Your task to perform on an android device: Turn off the flashlight Image 0: 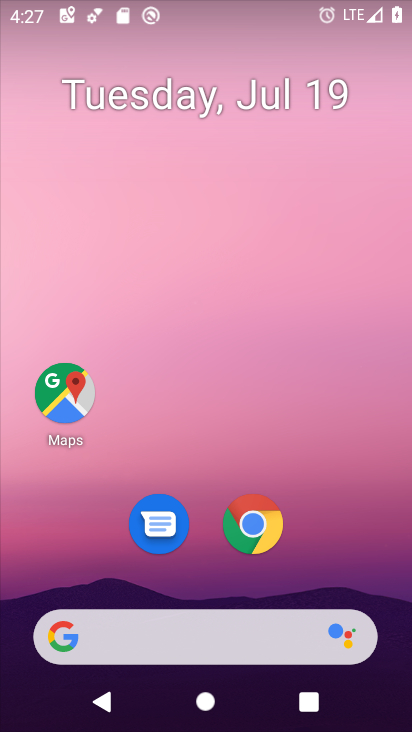
Step 0: drag from (317, 552) to (330, 0)
Your task to perform on an android device: Turn off the flashlight Image 1: 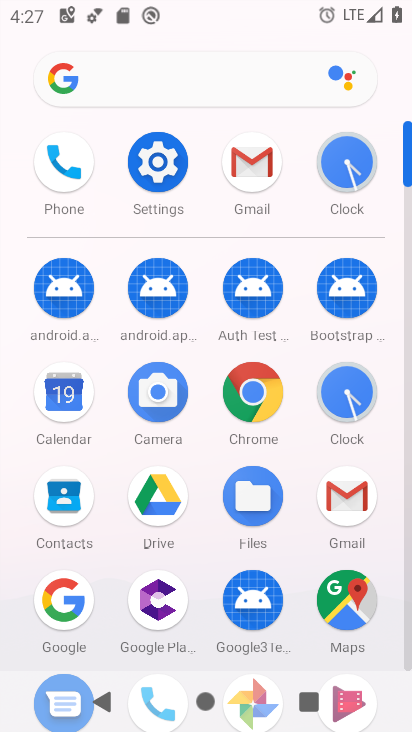
Step 1: click (176, 159)
Your task to perform on an android device: Turn off the flashlight Image 2: 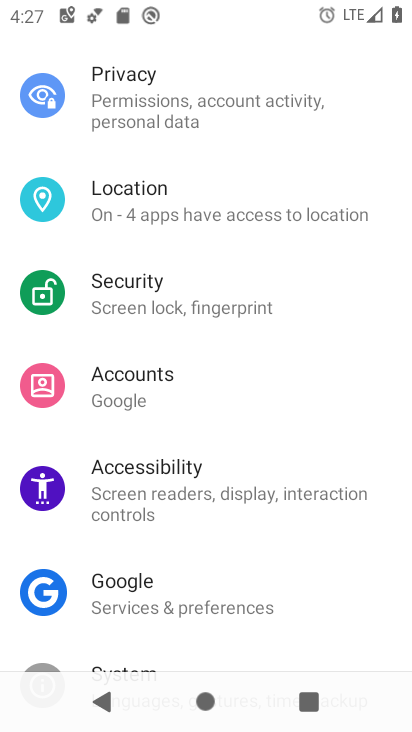
Step 2: drag from (242, 400) to (268, 670)
Your task to perform on an android device: Turn off the flashlight Image 3: 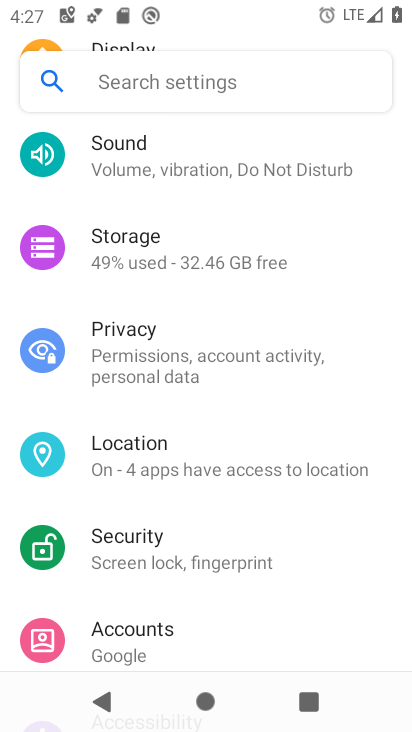
Step 3: drag from (246, 244) to (299, 613)
Your task to perform on an android device: Turn off the flashlight Image 4: 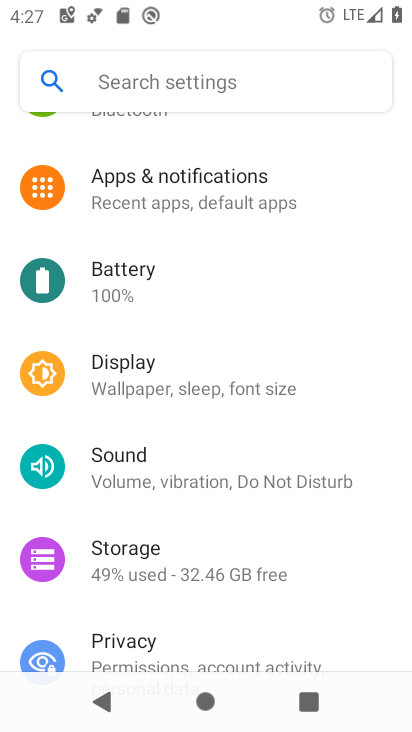
Step 4: drag from (255, 281) to (294, 641)
Your task to perform on an android device: Turn off the flashlight Image 5: 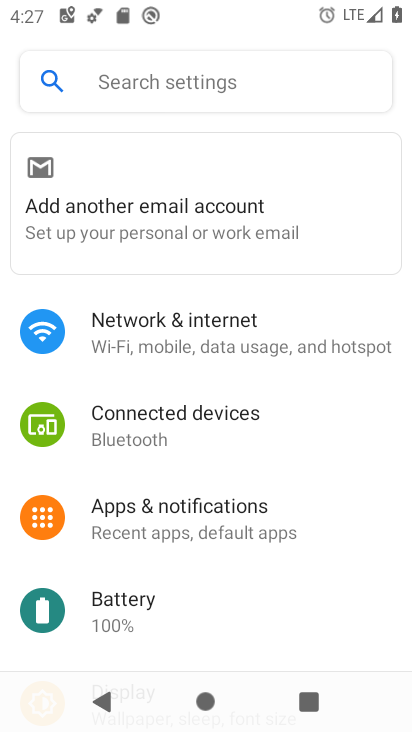
Step 5: click (254, 78)
Your task to perform on an android device: Turn off the flashlight Image 6: 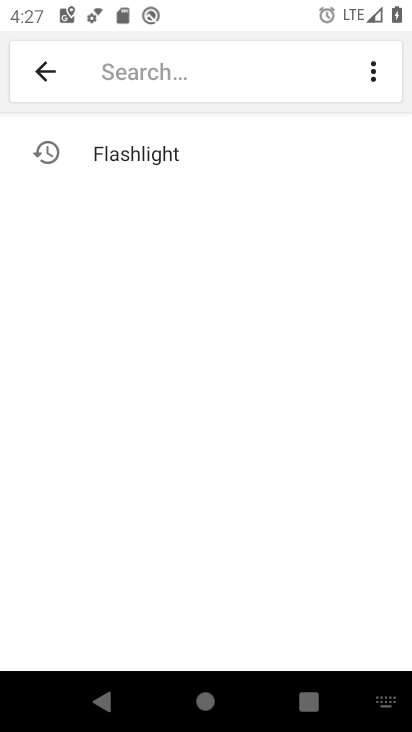
Step 6: click (162, 154)
Your task to perform on an android device: Turn off the flashlight Image 7: 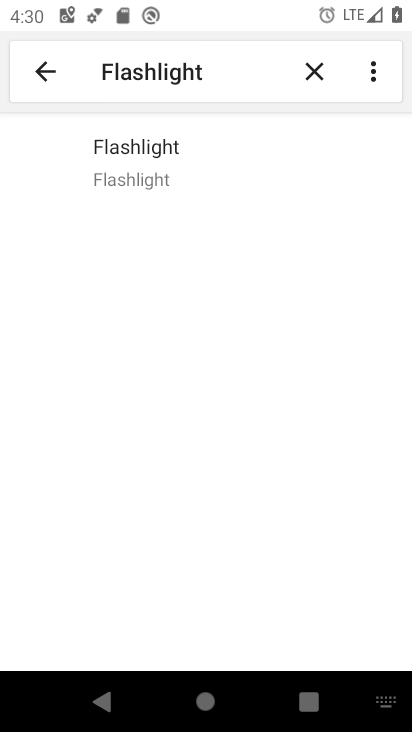
Step 7: task complete